Your task to perform on an android device: show emergency info Image 0: 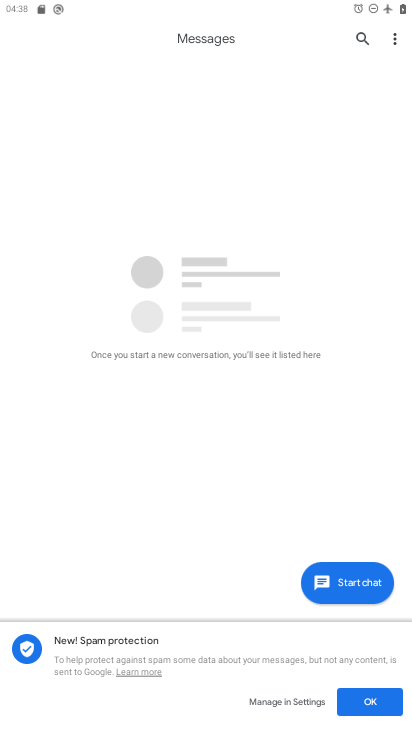
Step 0: press home button
Your task to perform on an android device: show emergency info Image 1: 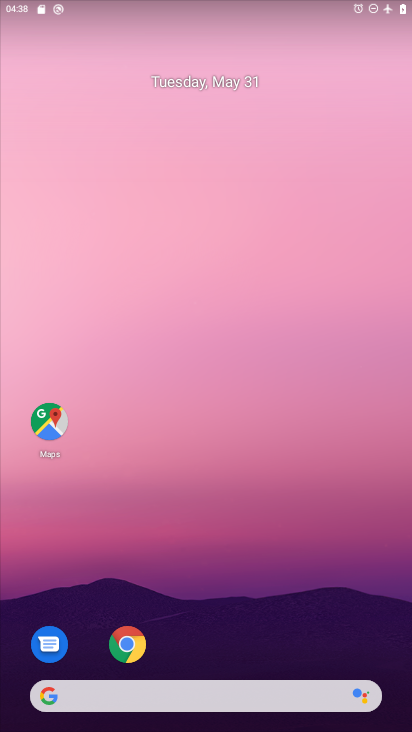
Step 1: drag from (341, 556) to (267, 102)
Your task to perform on an android device: show emergency info Image 2: 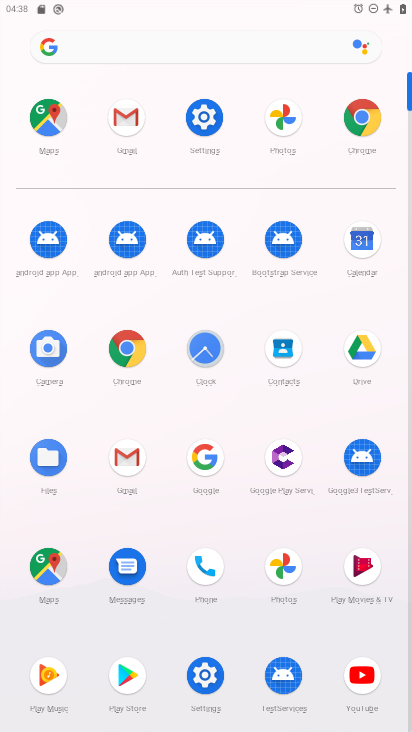
Step 2: click (198, 120)
Your task to perform on an android device: show emergency info Image 3: 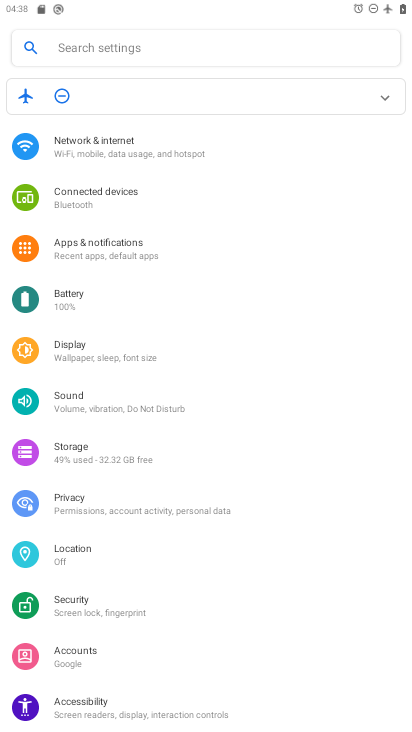
Step 3: drag from (223, 588) to (241, 85)
Your task to perform on an android device: show emergency info Image 4: 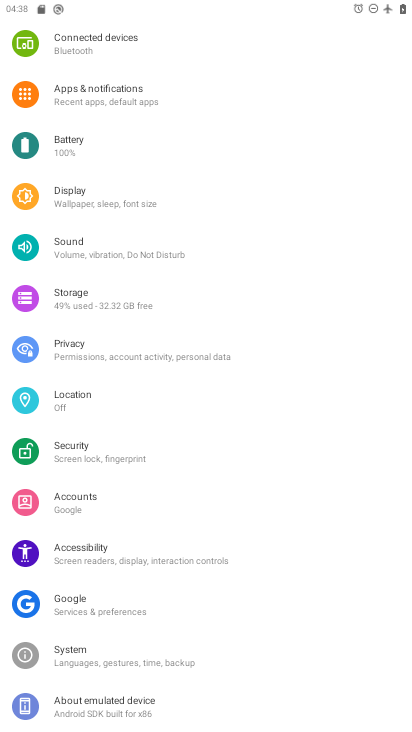
Step 4: click (124, 699)
Your task to perform on an android device: show emergency info Image 5: 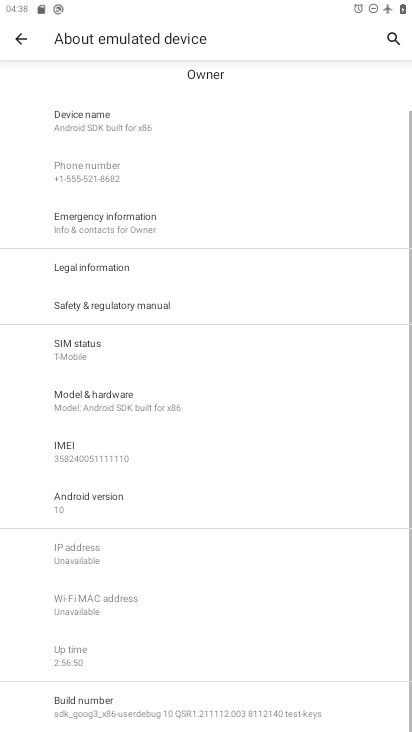
Step 5: drag from (196, 632) to (202, 495)
Your task to perform on an android device: show emergency info Image 6: 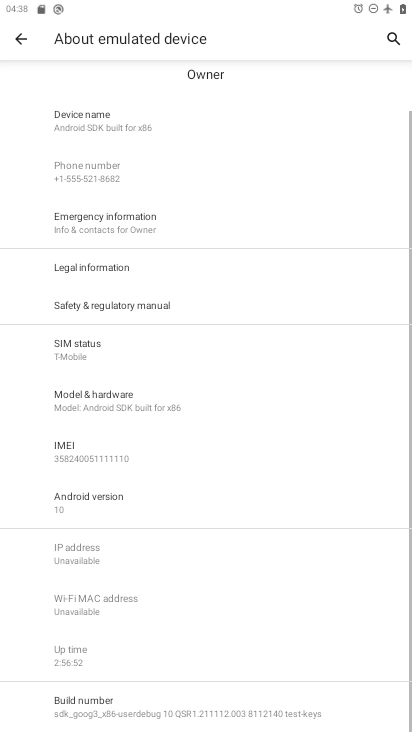
Step 6: click (107, 226)
Your task to perform on an android device: show emergency info Image 7: 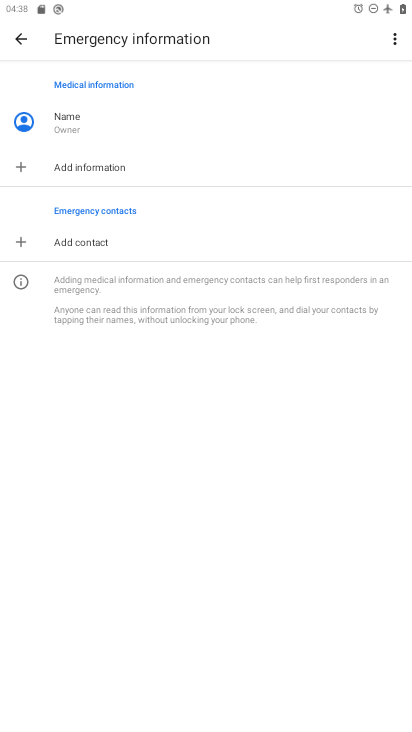
Step 7: task complete